Your task to perform on an android device: Search for pizza restaurants on Maps Image 0: 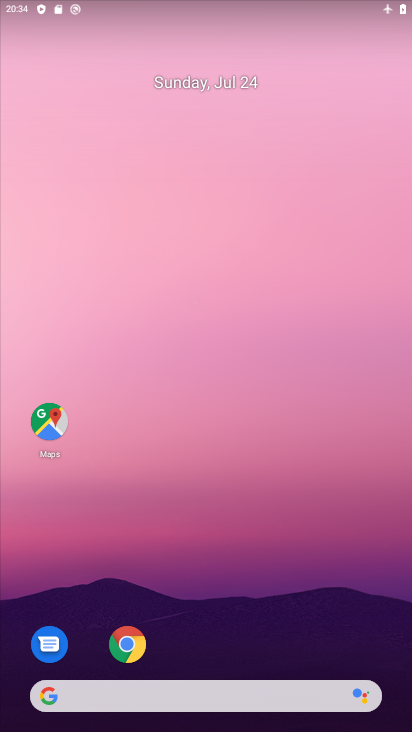
Step 0: click (47, 421)
Your task to perform on an android device: Search for pizza restaurants on Maps Image 1: 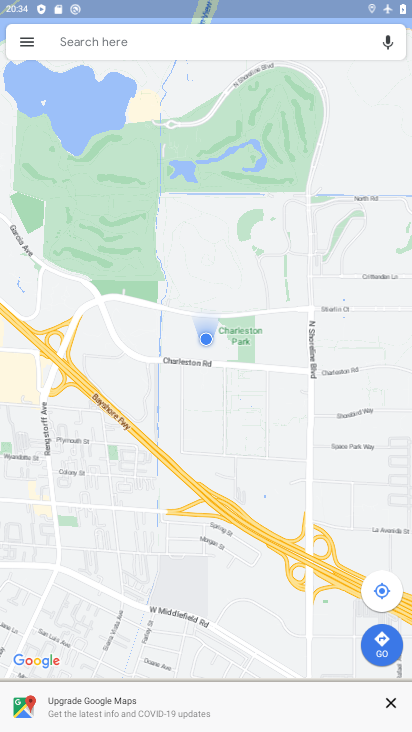
Step 1: click (124, 47)
Your task to perform on an android device: Search for pizza restaurants on Maps Image 2: 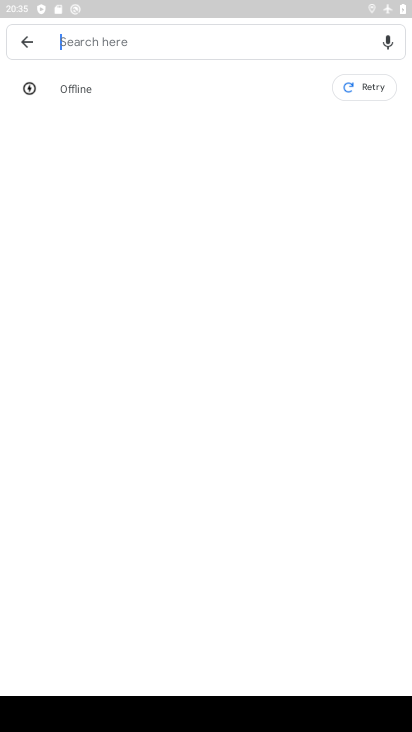
Step 2: type "pizza restaurants"
Your task to perform on an android device: Search for pizza restaurants on Maps Image 3: 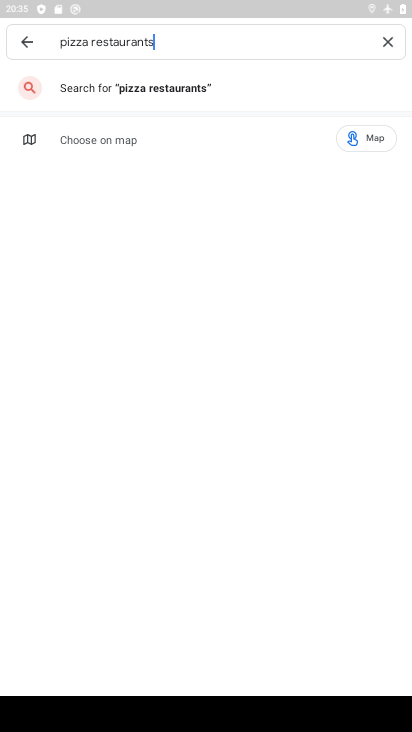
Step 3: click (152, 88)
Your task to perform on an android device: Search for pizza restaurants on Maps Image 4: 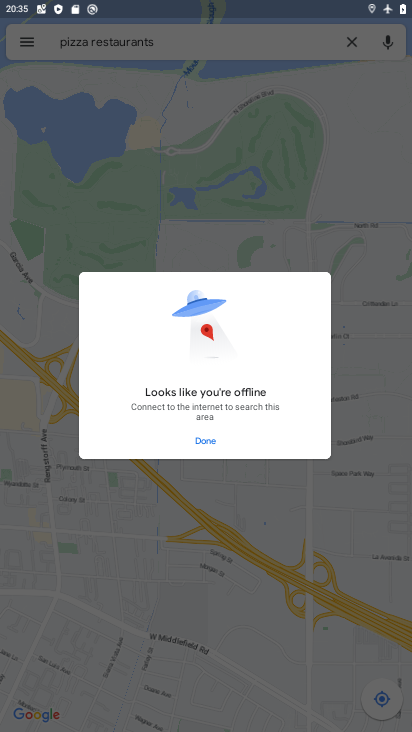
Step 4: task complete